Your task to perform on an android device: Open the web browser Image 0: 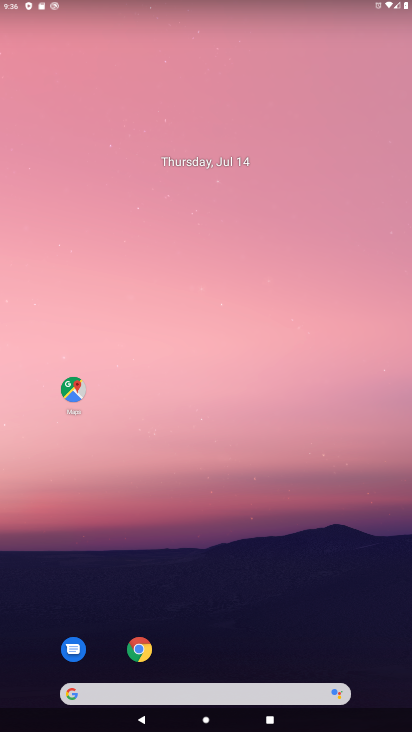
Step 0: click (146, 646)
Your task to perform on an android device: Open the web browser Image 1: 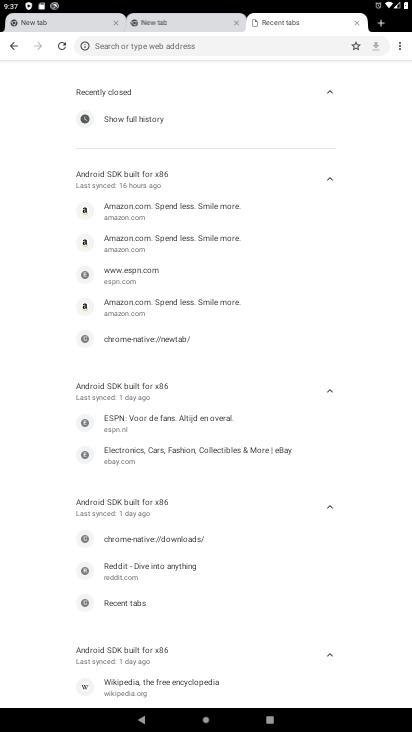
Step 1: task complete